Your task to perform on an android device: add a contact Image 0: 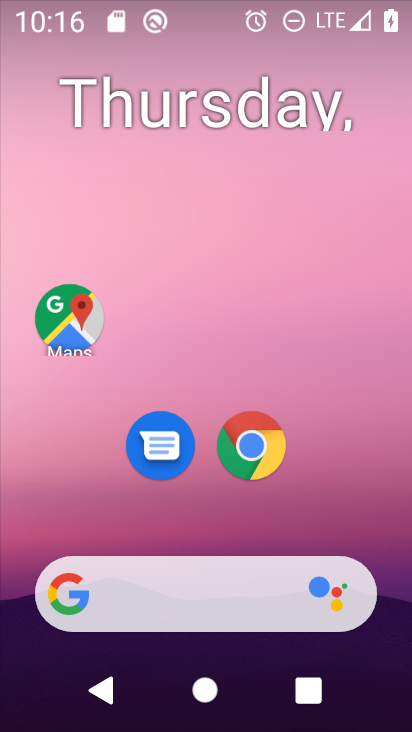
Step 0: drag from (389, 629) to (340, 47)
Your task to perform on an android device: add a contact Image 1: 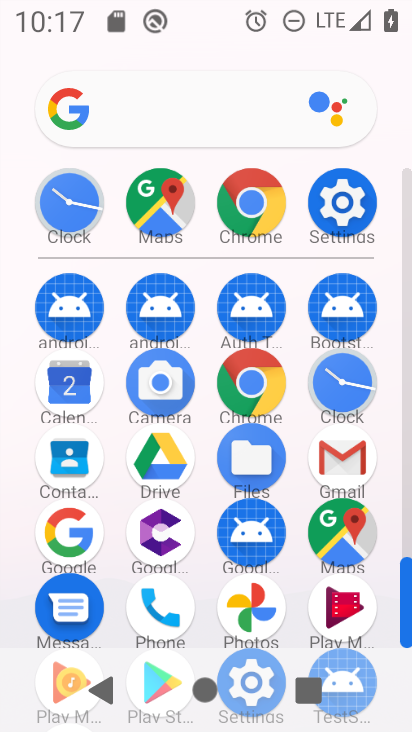
Step 1: click (74, 476)
Your task to perform on an android device: add a contact Image 2: 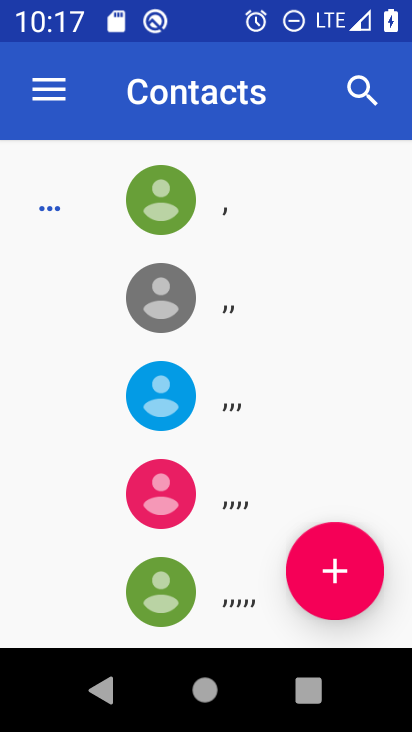
Step 2: click (330, 563)
Your task to perform on an android device: add a contact Image 3: 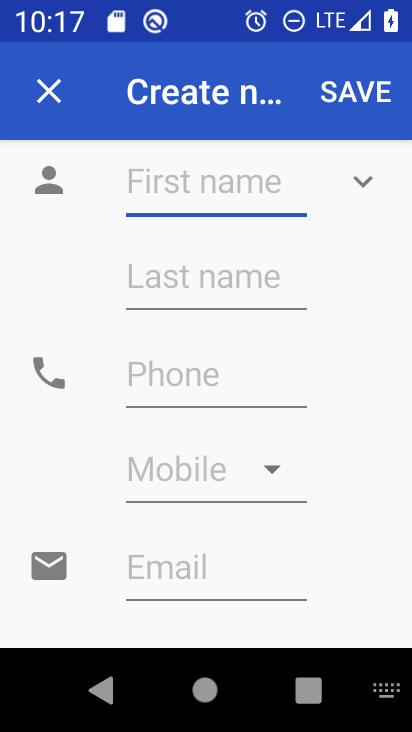
Step 3: type "fiza"
Your task to perform on an android device: add a contact Image 4: 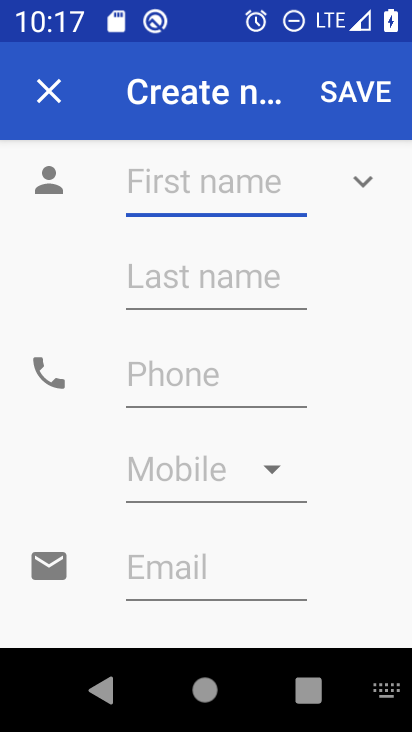
Step 4: click (363, 82)
Your task to perform on an android device: add a contact Image 5: 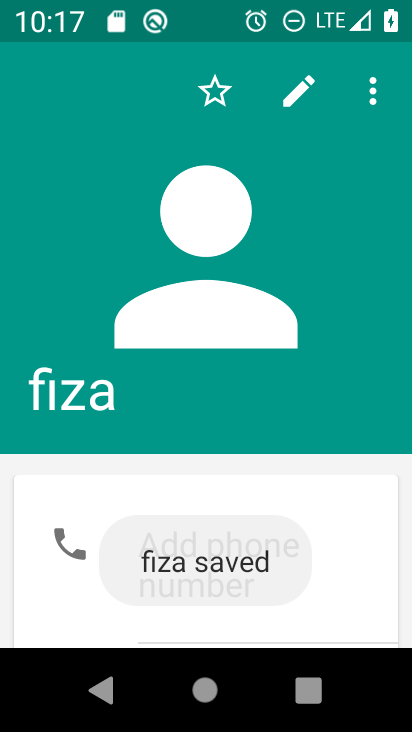
Step 5: task complete